Your task to perform on an android device: check out phone information Image 0: 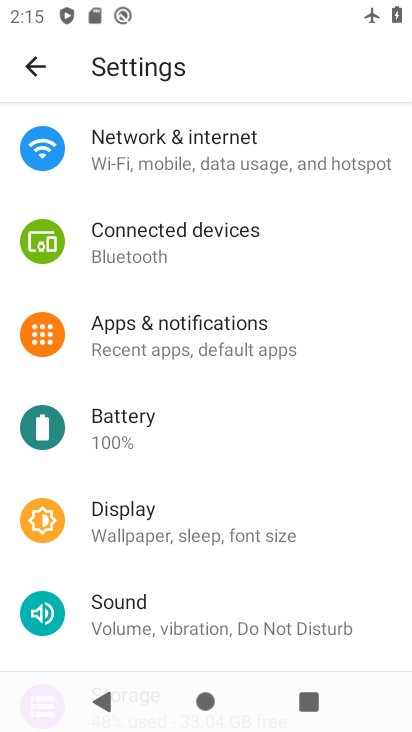
Step 0: press home button
Your task to perform on an android device: check out phone information Image 1: 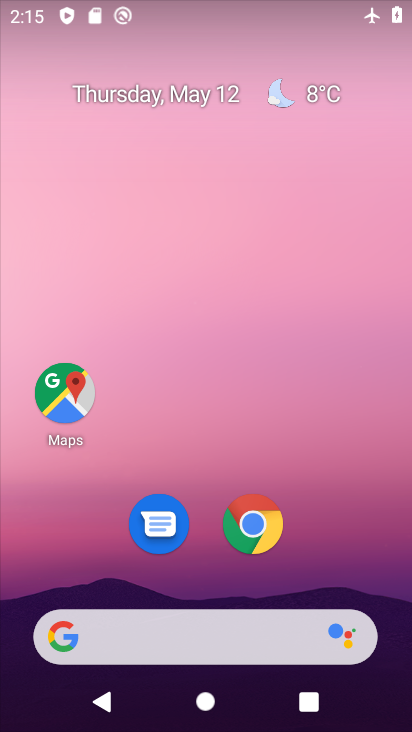
Step 1: drag from (246, 454) to (206, 30)
Your task to perform on an android device: check out phone information Image 2: 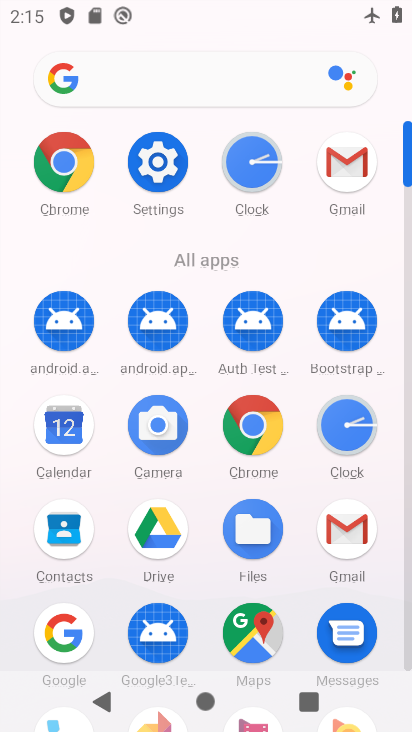
Step 2: drag from (112, 578) to (137, 291)
Your task to perform on an android device: check out phone information Image 3: 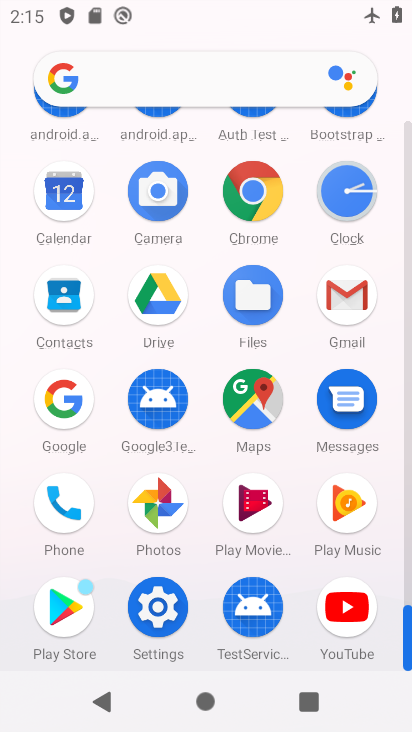
Step 3: click (69, 499)
Your task to perform on an android device: check out phone information Image 4: 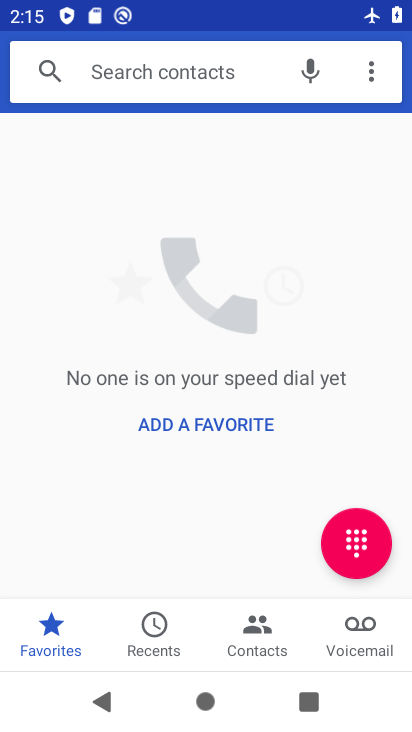
Step 4: click (369, 71)
Your task to perform on an android device: check out phone information Image 5: 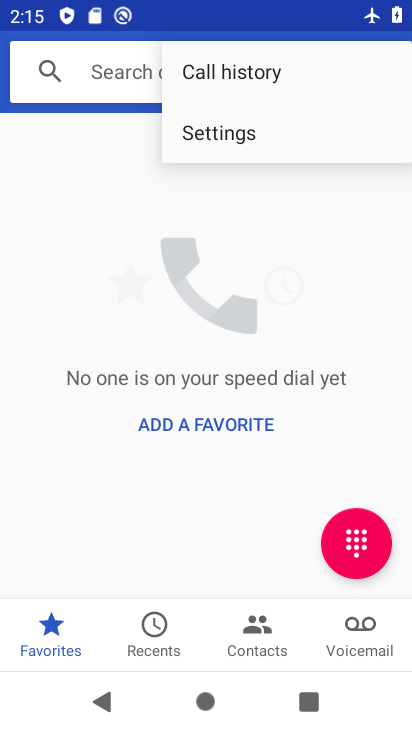
Step 5: click (282, 139)
Your task to perform on an android device: check out phone information Image 6: 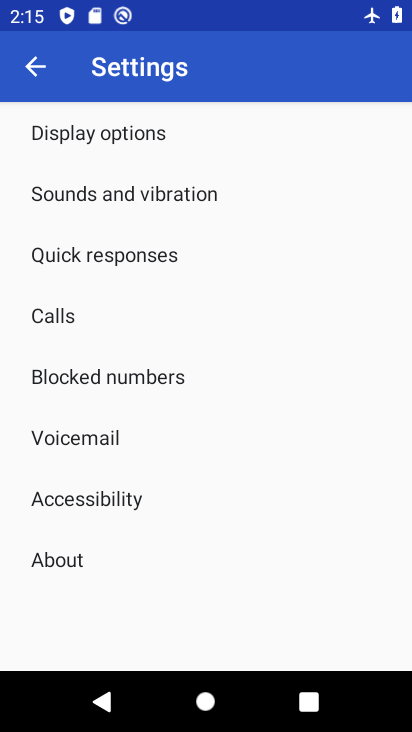
Step 6: click (59, 554)
Your task to perform on an android device: check out phone information Image 7: 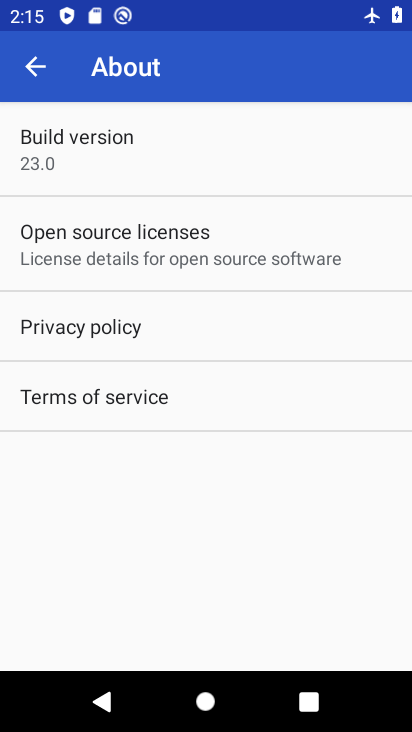
Step 7: task complete